Your task to perform on an android device: Open sound settings Image 0: 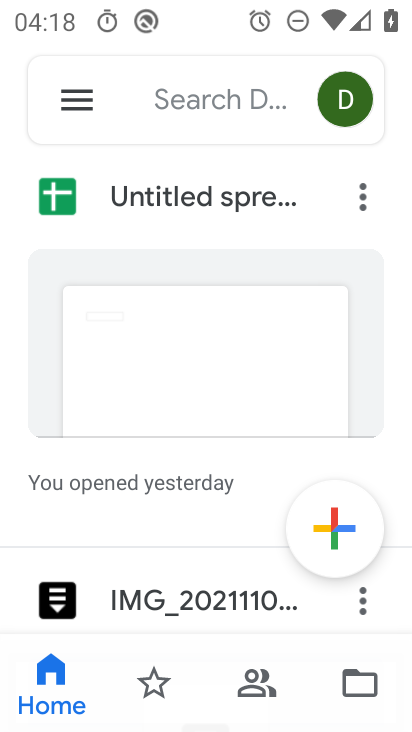
Step 0: press home button
Your task to perform on an android device: Open sound settings Image 1: 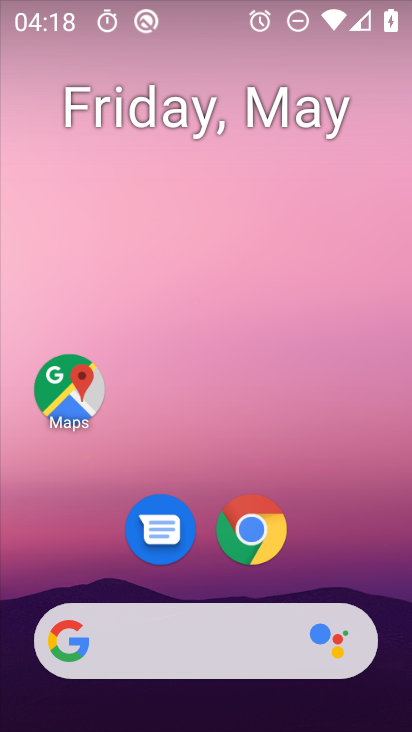
Step 1: drag from (398, 686) to (361, 226)
Your task to perform on an android device: Open sound settings Image 2: 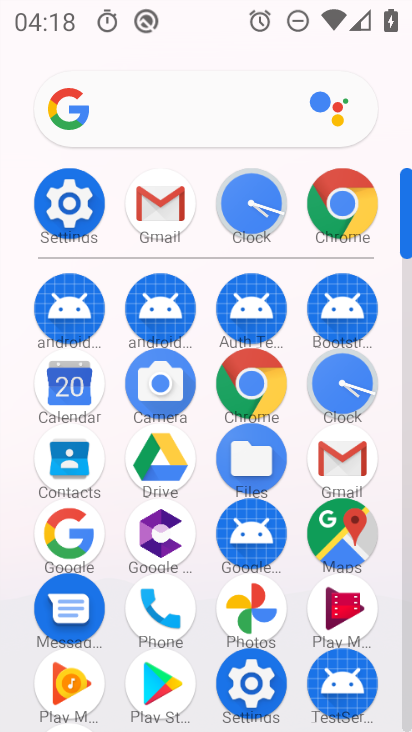
Step 2: click (75, 198)
Your task to perform on an android device: Open sound settings Image 3: 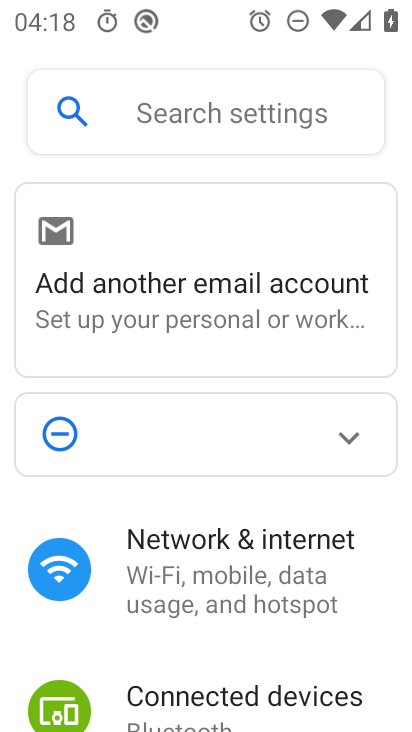
Step 3: drag from (255, 713) to (250, 247)
Your task to perform on an android device: Open sound settings Image 4: 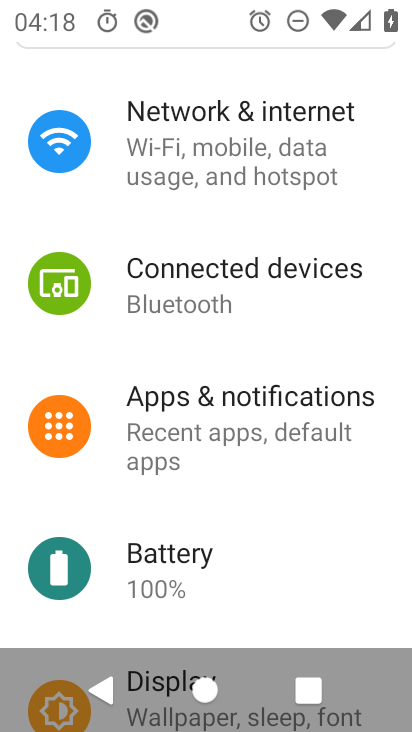
Step 4: drag from (256, 621) to (239, 206)
Your task to perform on an android device: Open sound settings Image 5: 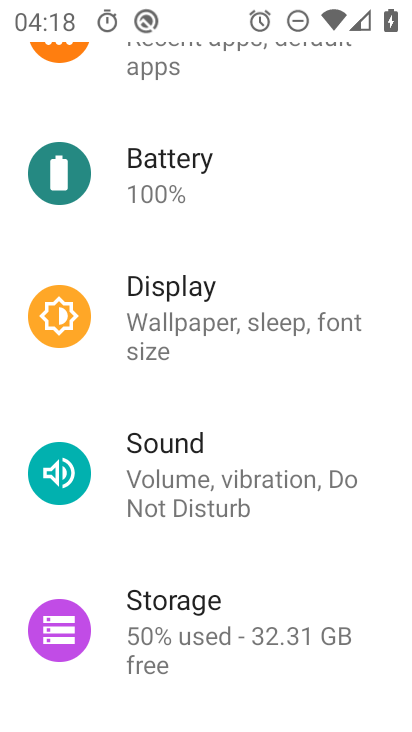
Step 5: drag from (241, 678) to (240, 389)
Your task to perform on an android device: Open sound settings Image 6: 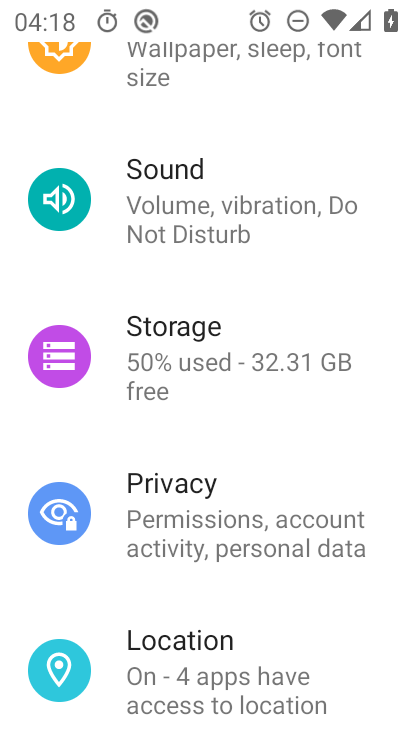
Step 6: click (152, 185)
Your task to perform on an android device: Open sound settings Image 7: 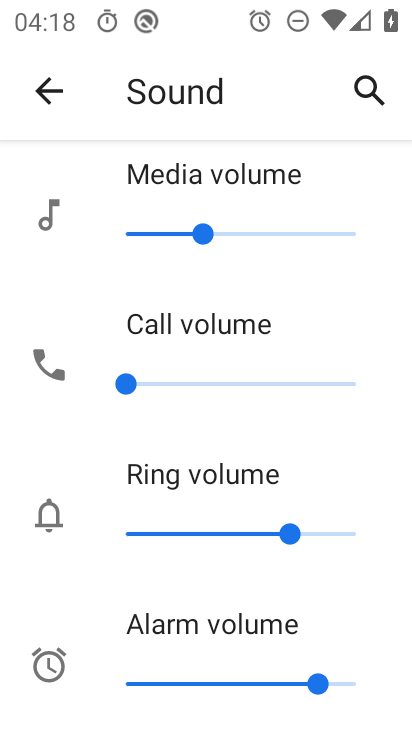
Step 7: task complete